Your task to perform on an android device: Open Amazon Image 0: 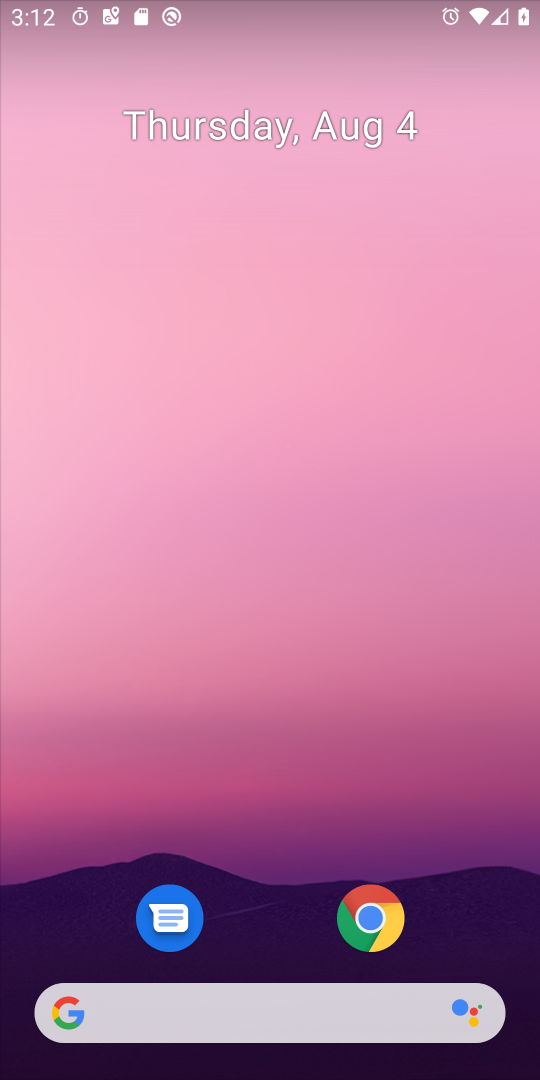
Step 0: click (349, 903)
Your task to perform on an android device: Open Amazon Image 1: 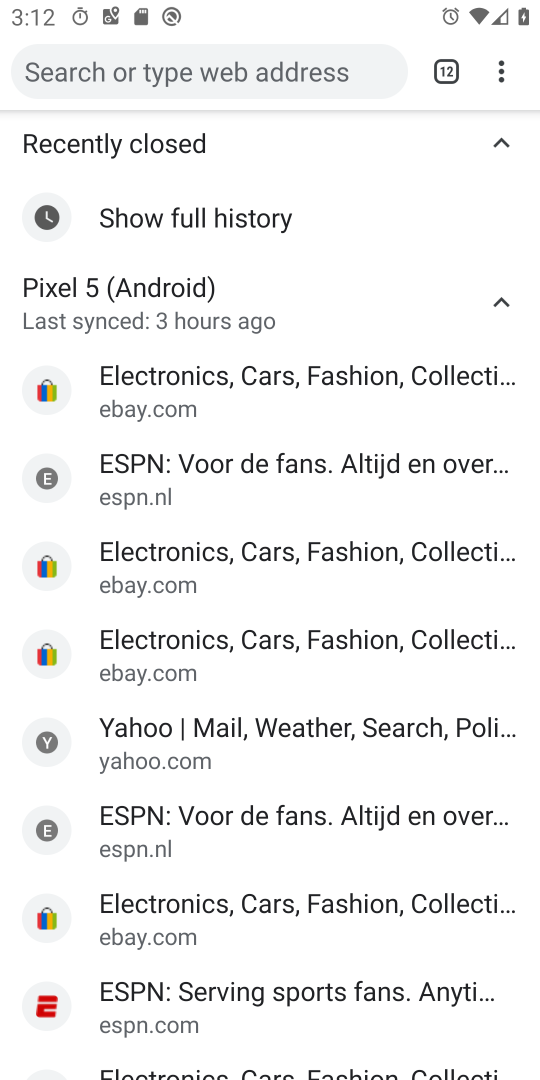
Step 1: click (450, 77)
Your task to perform on an android device: Open Amazon Image 2: 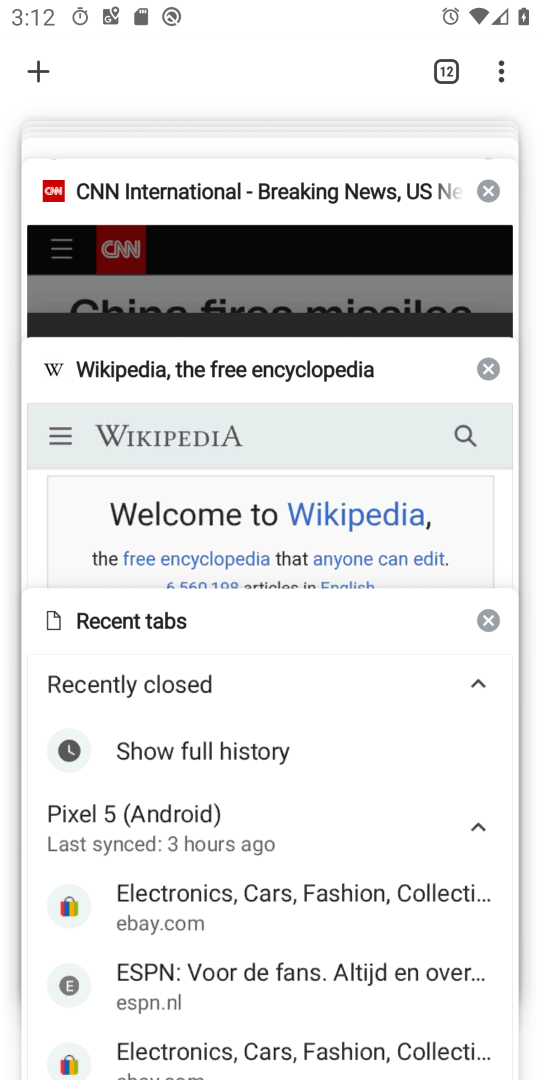
Step 2: click (34, 66)
Your task to perform on an android device: Open Amazon Image 3: 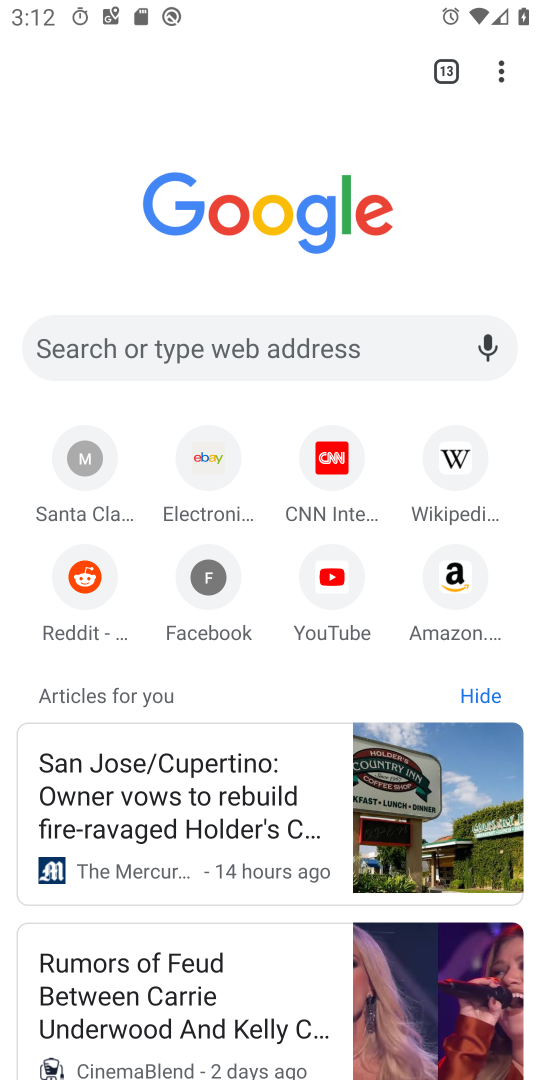
Step 3: click (469, 555)
Your task to perform on an android device: Open Amazon Image 4: 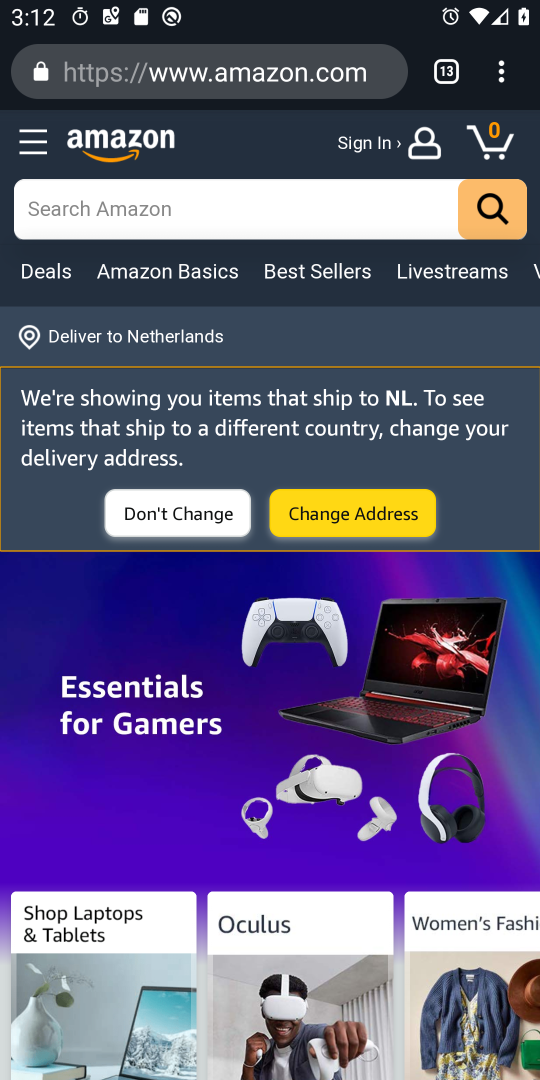
Step 4: task complete